Your task to perform on an android device: Open maps Image 0: 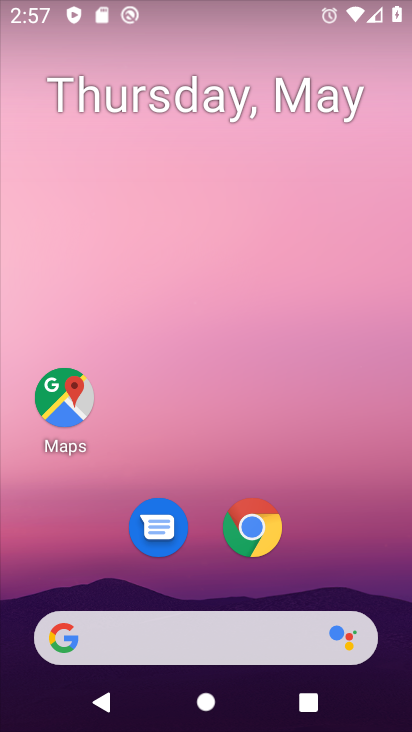
Step 0: click (62, 423)
Your task to perform on an android device: Open maps Image 1: 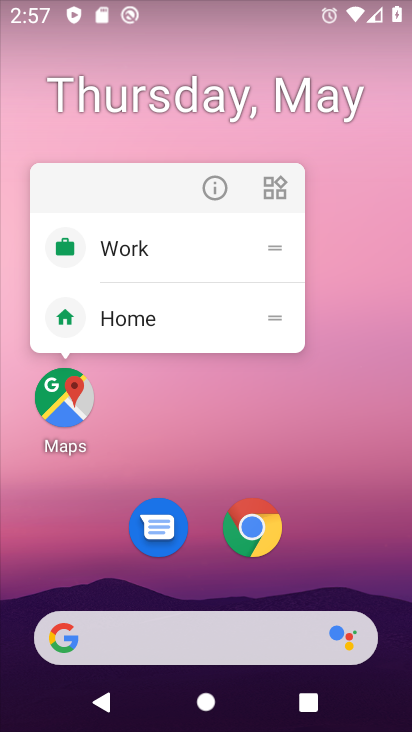
Step 1: click (62, 417)
Your task to perform on an android device: Open maps Image 2: 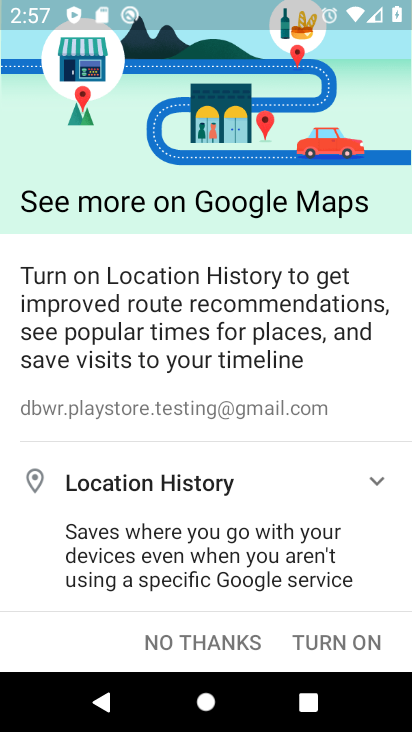
Step 2: click (231, 648)
Your task to perform on an android device: Open maps Image 3: 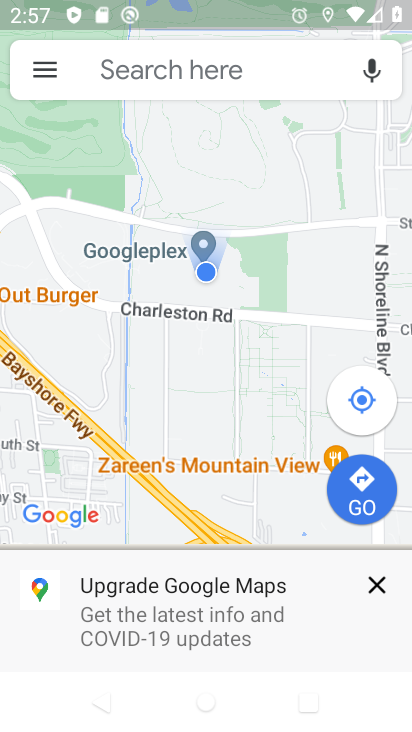
Step 3: click (233, 640)
Your task to perform on an android device: Open maps Image 4: 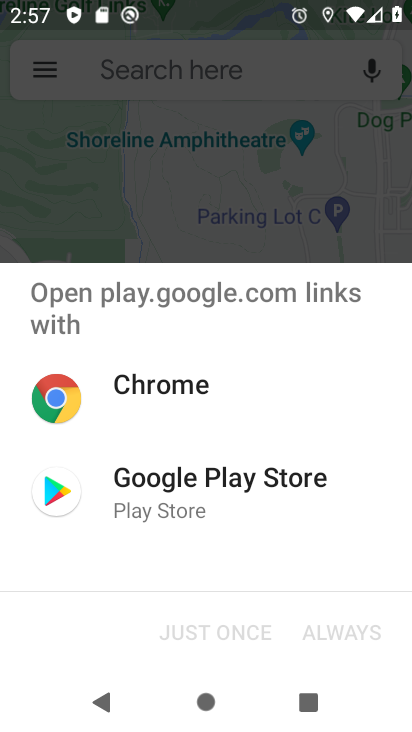
Step 4: task complete